Your task to perform on an android device: delete the emails in spam in the gmail app Image 0: 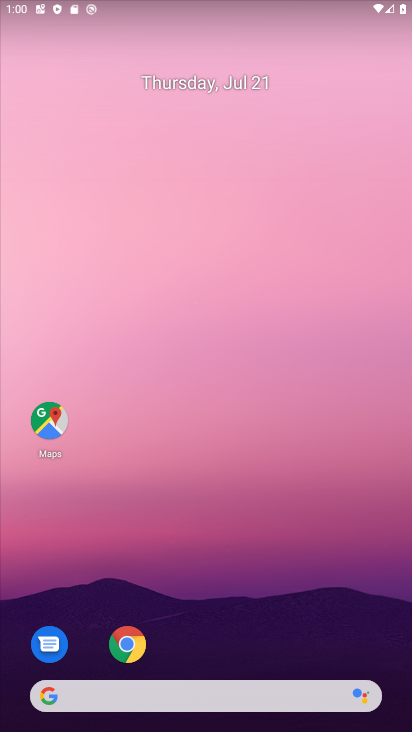
Step 0: drag from (217, 678) to (403, 43)
Your task to perform on an android device: delete the emails in spam in the gmail app Image 1: 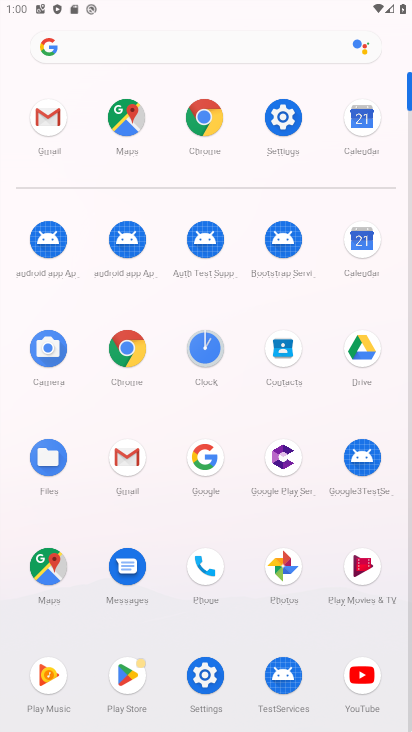
Step 1: click (126, 466)
Your task to perform on an android device: delete the emails in spam in the gmail app Image 2: 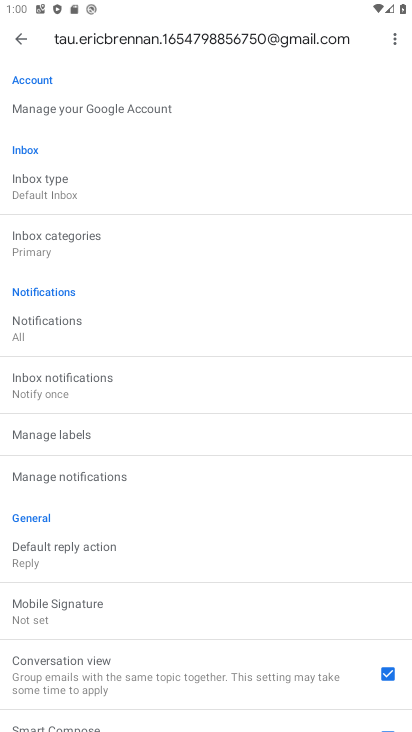
Step 2: click (31, 37)
Your task to perform on an android device: delete the emails in spam in the gmail app Image 3: 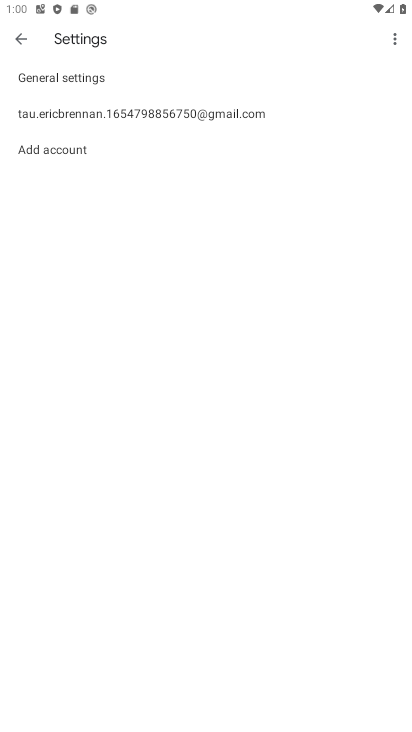
Step 3: click (15, 44)
Your task to perform on an android device: delete the emails in spam in the gmail app Image 4: 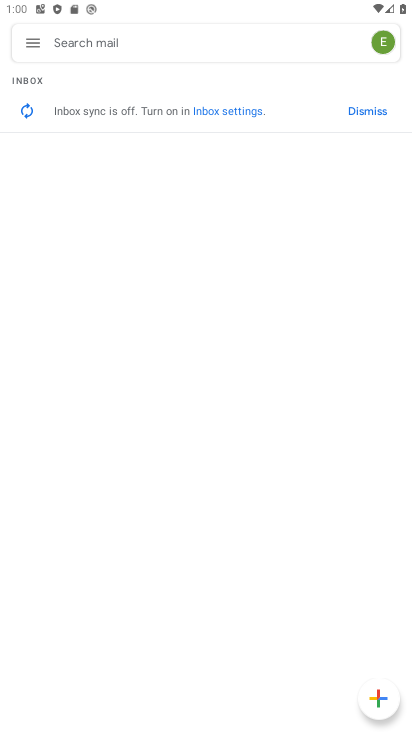
Step 4: drag from (192, 118) to (190, 544)
Your task to perform on an android device: delete the emails in spam in the gmail app Image 5: 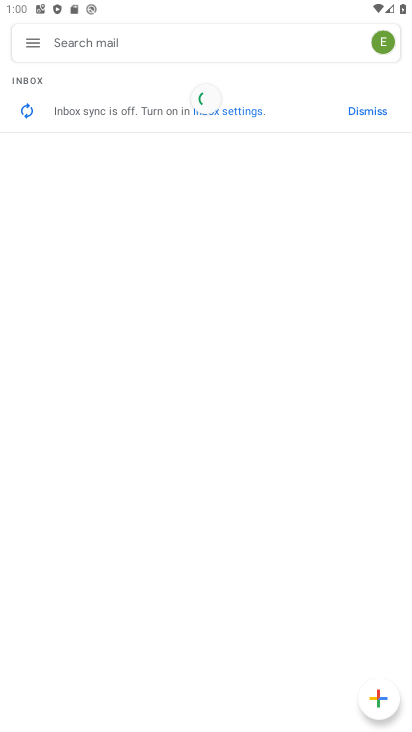
Step 5: click (370, 110)
Your task to perform on an android device: delete the emails in spam in the gmail app Image 6: 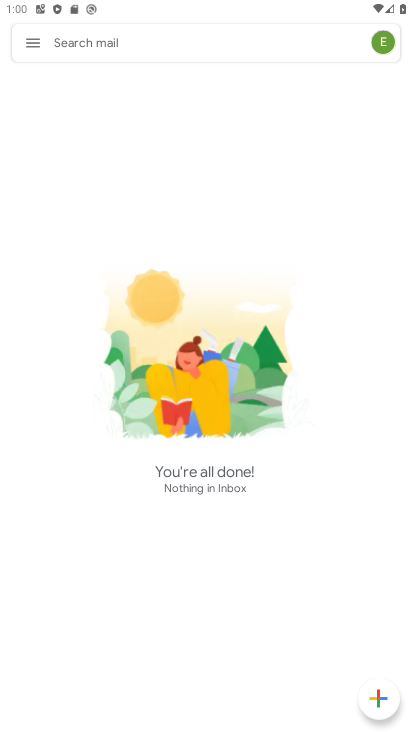
Step 6: click (23, 47)
Your task to perform on an android device: delete the emails in spam in the gmail app Image 7: 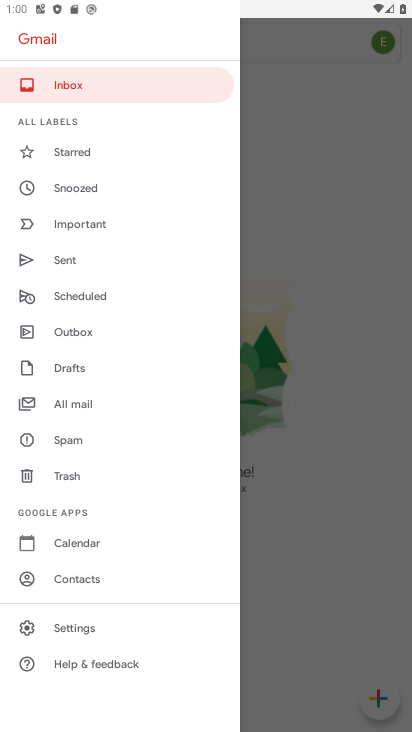
Step 7: click (69, 433)
Your task to perform on an android device: delete the emails in spam in the gmail app Image 8: 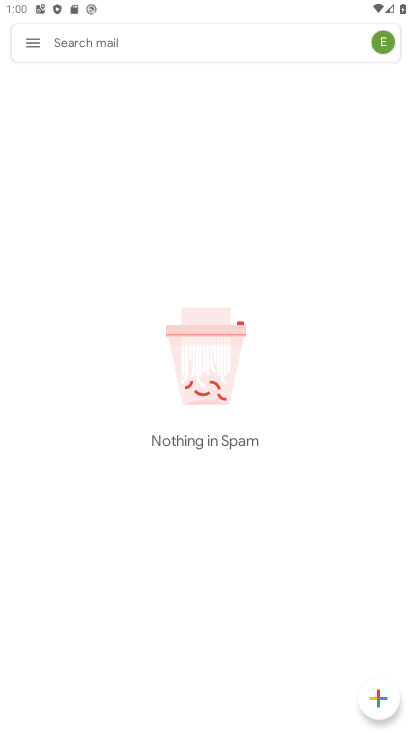
Step 8: task complete